Your task to perform on an android device: Search for vegetarian restaurants on Maps Image 0: 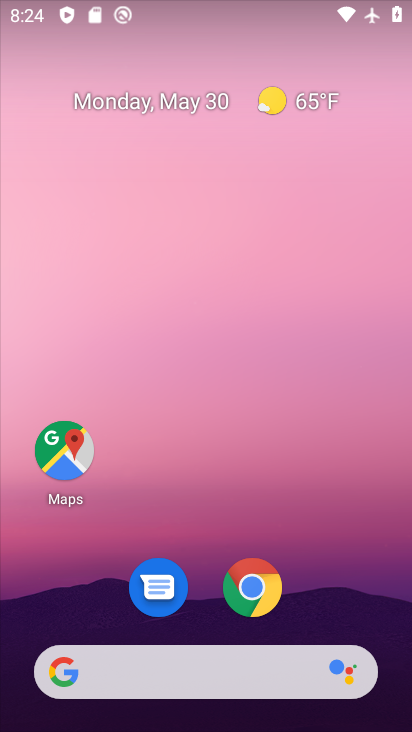
Step 0: press home button
Your task to perform on an android device: Search for vegetarian restaurants on Maps Image 1: 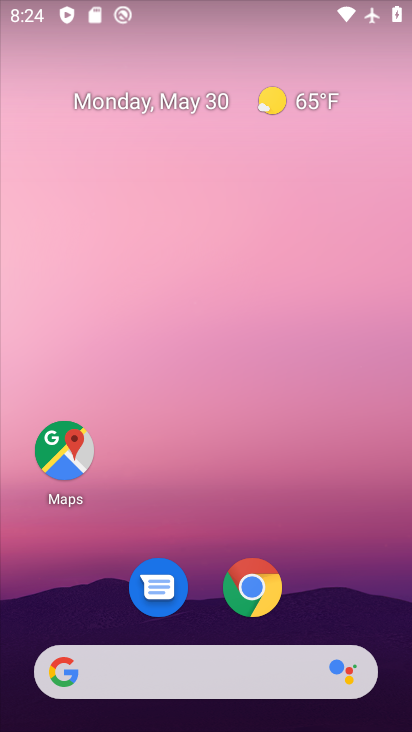
Step 1: click (58, 454)
Your task to perform on an android device: Search for vegetarian restaurants on Maps Image 2: 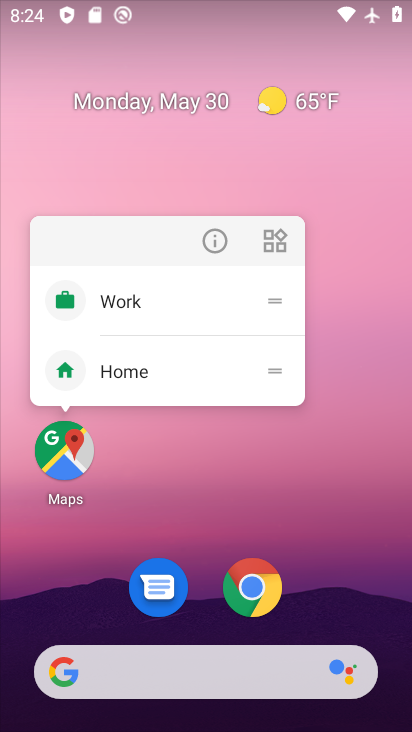
Step 2: click (65, 462)
Your task to perform on an android device: Search for vegetarian restaurants on Maps Image 3: 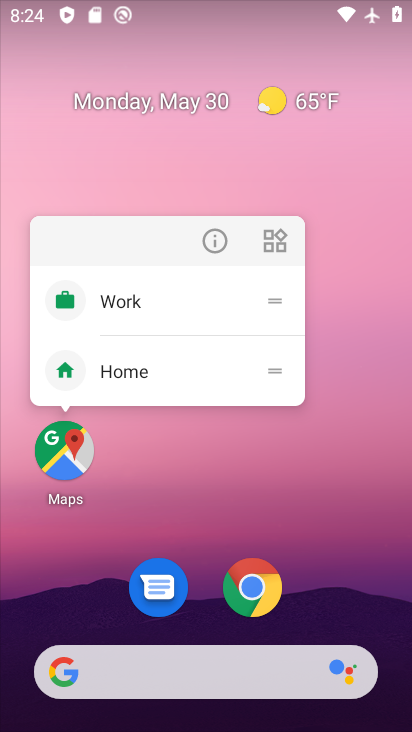
Step 3: click (65, 462)
Your task to perform on an android device: Search for vegetarian restaurants on Maps Image 4: 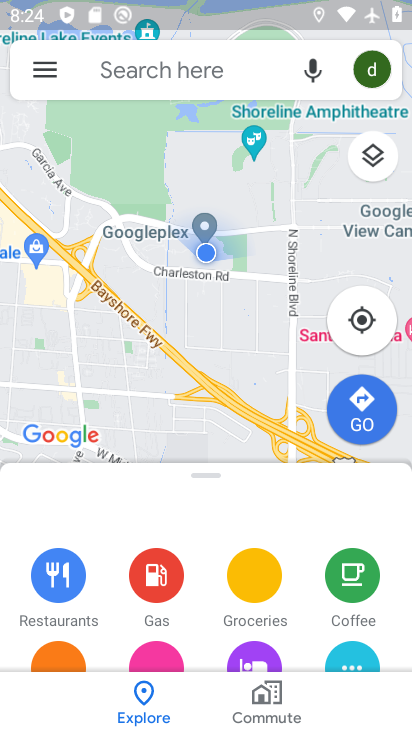
Step 4: click (134, 63)
Your task to perform on an android device: Search for vegetarian restaurants on Maps Image 5: 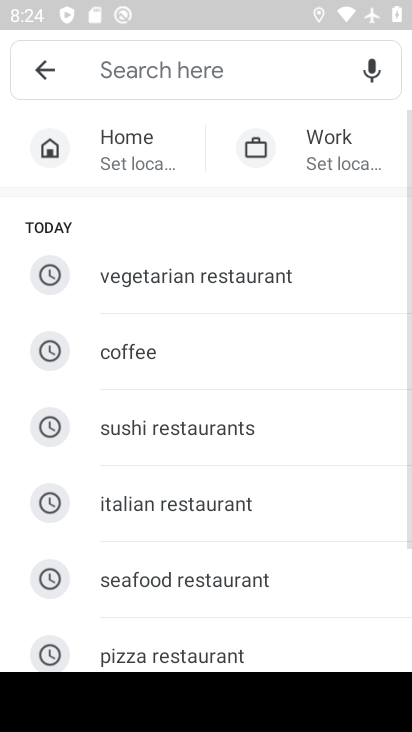
Step 5: click (172, 284)
Your task to perform on an android device: Search for vegetarian restaurants on Maps Image 6: 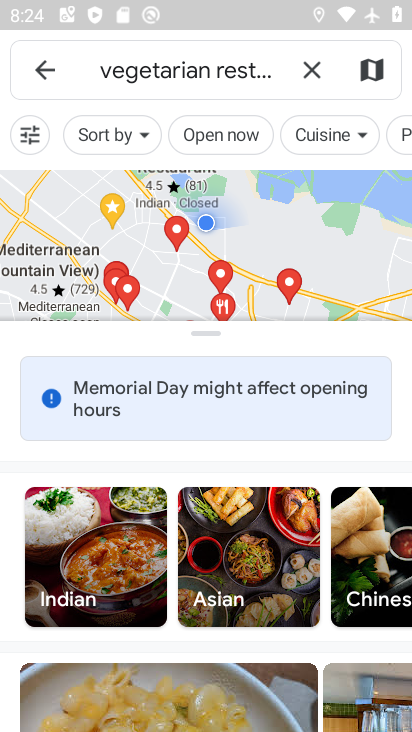
Step 6: task complete